Your task to perform on an android device: set default search engine in the chrome app Image 0: 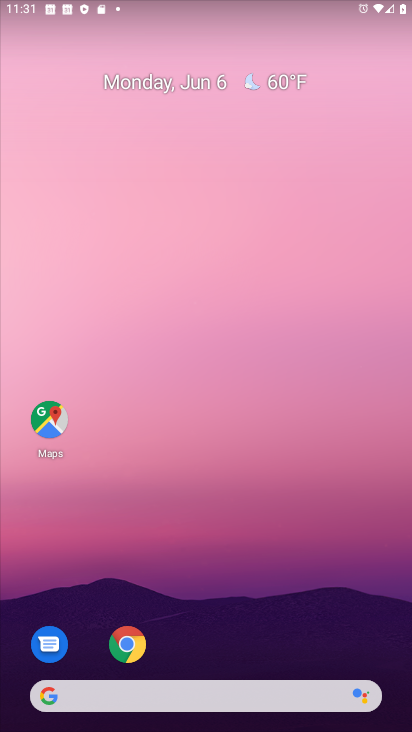
Step 0: click (130, 656)
Your task to perform on an android device: set default search engine in the chrome app Image 1: 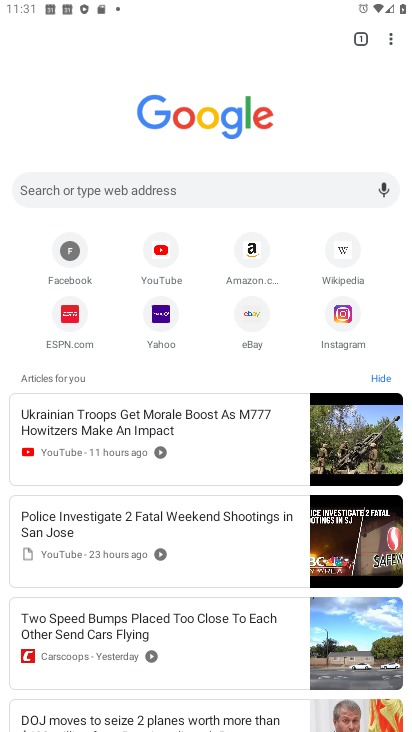
Step 1: click (388, 39)
Your task to perform on an android device: set default search engine in the chrome app Image 2: 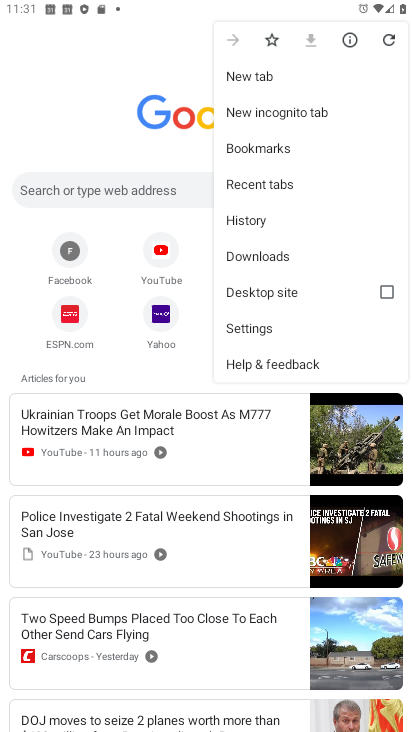
Step 2: click (246, 328)
Your task to perform on an android device: set default search engine in the chrome app Image 3: 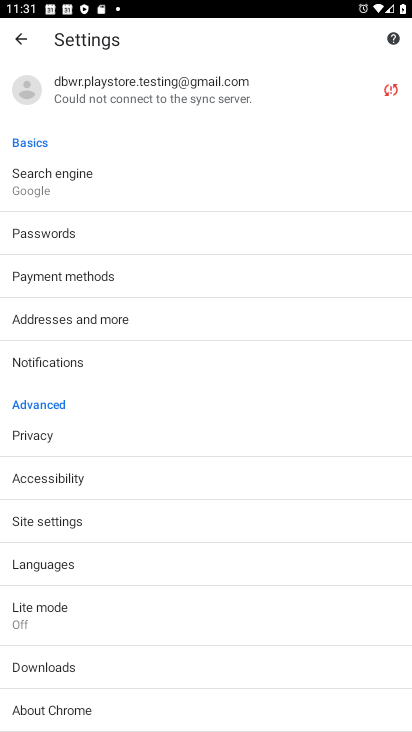
Step 3: click (64, 195)
Your task to perform on an android device: set default search engine in the chrome app Image 4: 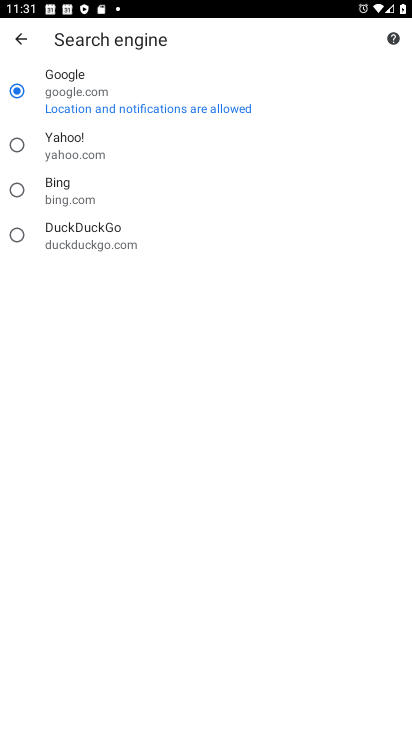
Step 4: click (60, 152)
Your task to perform on an android device: set default search engine in the chrome app Image 5: 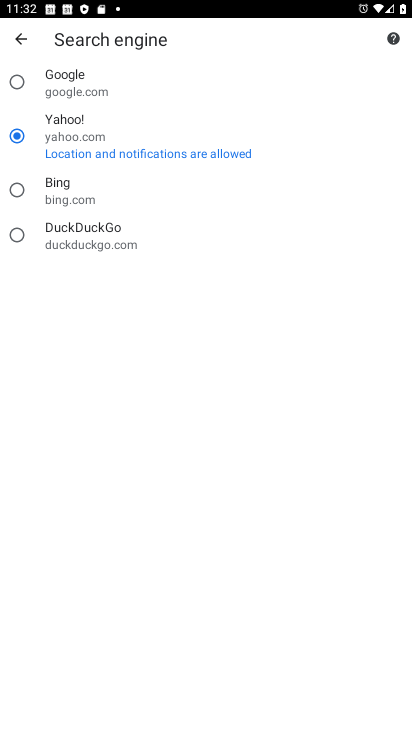
Step 5: task complete